Your task to perform on an android device: Open location settings Image 0: 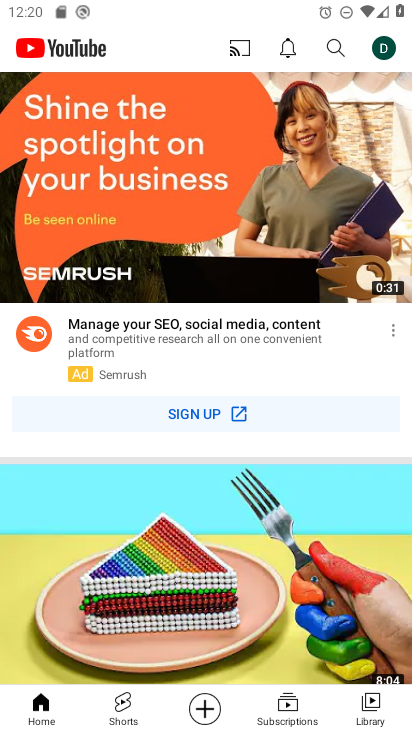
Step 0: press home button
Your task to perform on an android device: Open location settings Image 1: 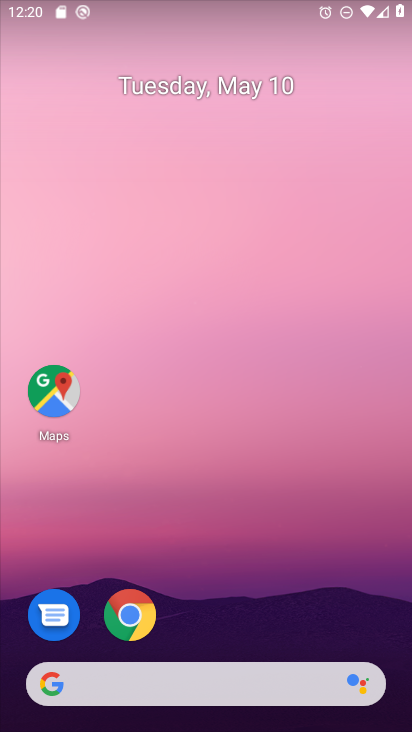
Step 1: drag from (236, 716) to (247, 226)
Your task to perform on an android device: Open location settings Image 2: 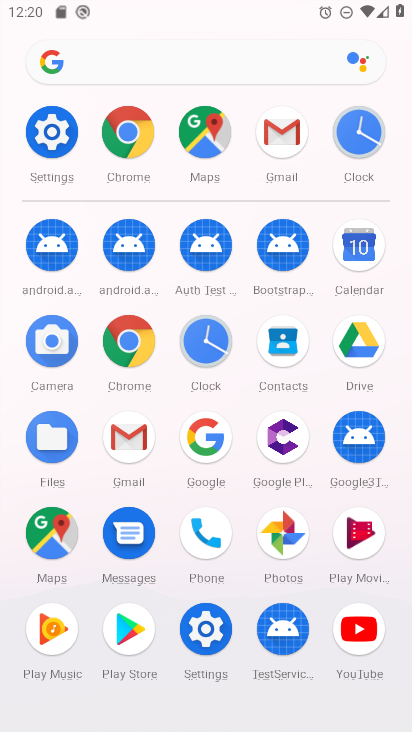
Step 2: click (56, 142)
Your task to perform on an android device: Open location settings Image 3: 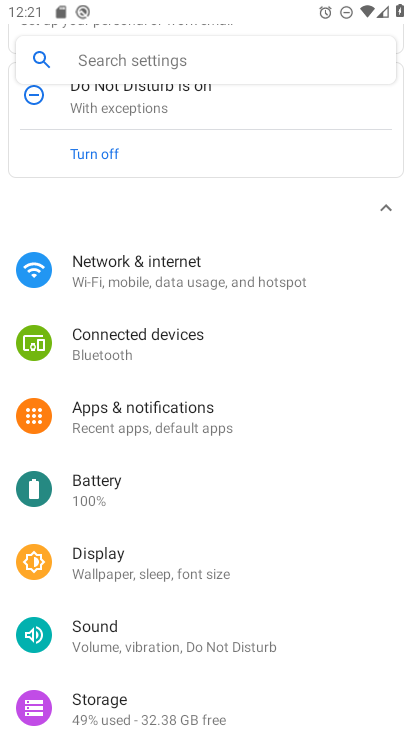
Step 3: drag from (152, 624) to (266, 377)
Your task to perform on an android device: Open location settings Image 4: 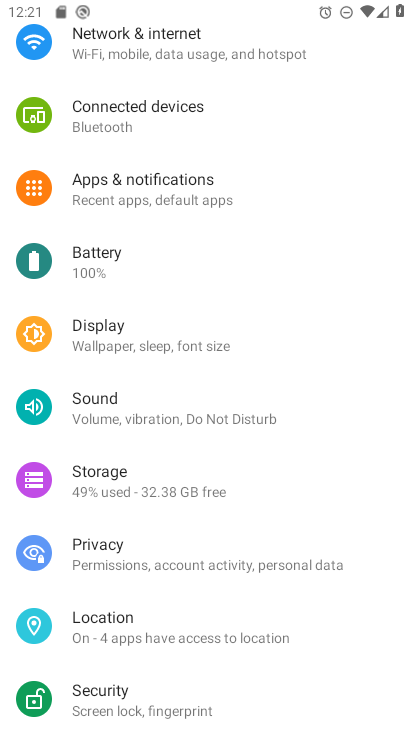
Step 4: click (122, 626)
Your task to perform on an android device: Open location settings Image 5: 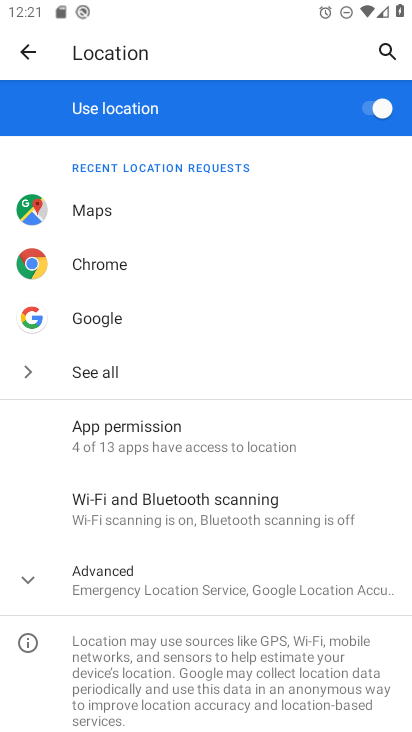
Step 5: task complete